Your task to perform on an android device: Open Youtube and go to the subscriptions tab Image 0: 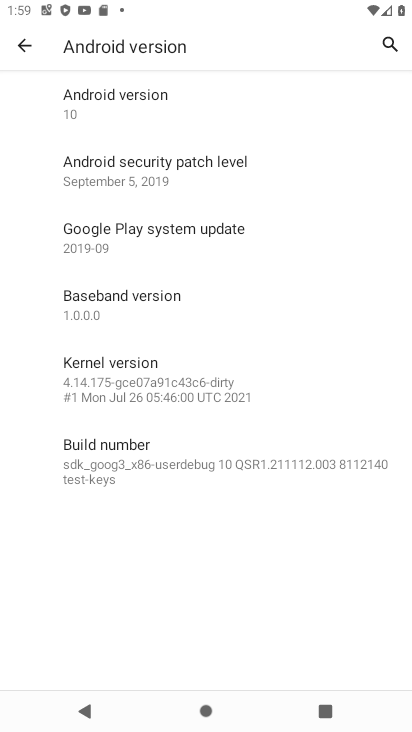
Step 0: press home button
Your task to perform on an android device: Open Youtube and go to the subscriptions tab Image 1: 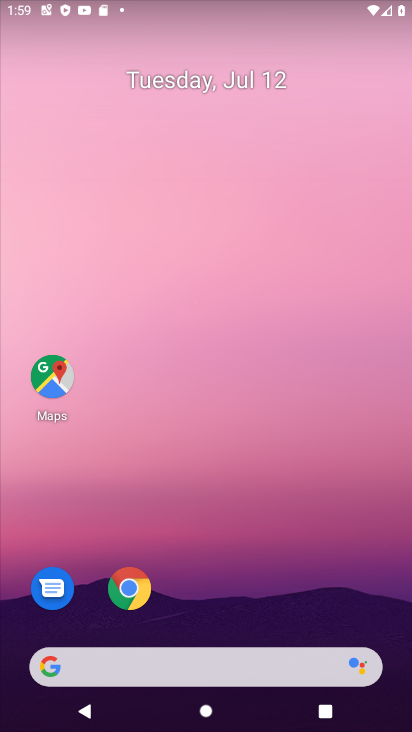
Step 1: drag from (195, 662) to (154, 196)
Your task to perform on an android device: Open Youtube and go to the subscriptions tab Image 2: 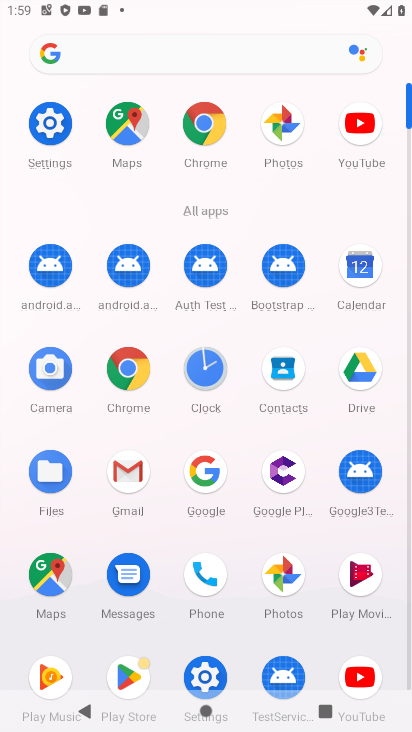
Step 2: click (366, 678)
Your task to perform on an android device: Open Youtube and go to the subscriptions tab Image 3: 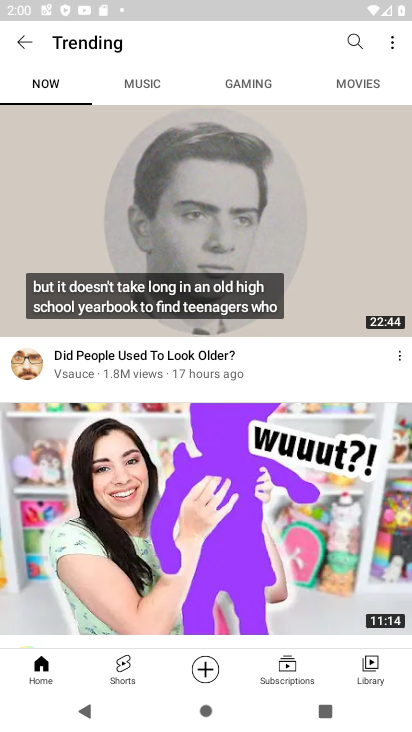
Step 3: click (279, 667)
Your task to perform on an android device: Open Youtube and go to the subscriptions tab Image 4: 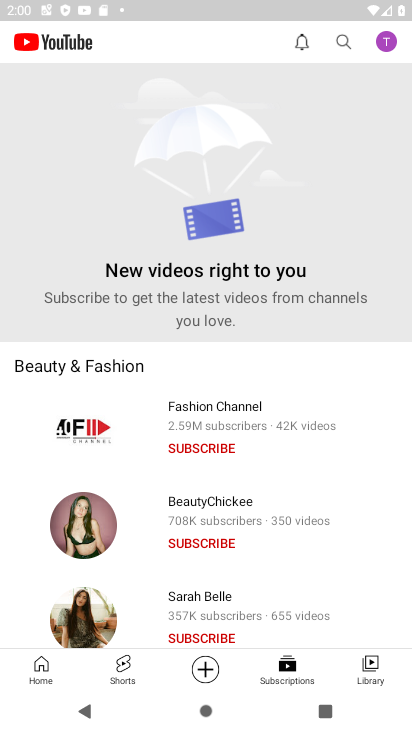
Step 4: task complete